Your task to perform on an android device: toggle airplane mode Image 0: 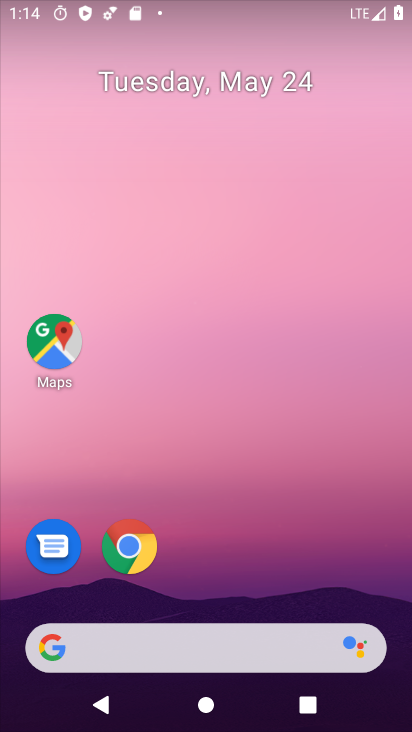
Step 0: click (282, 223)
Your task to perform on an android device: toggle airplane mode Image 1: 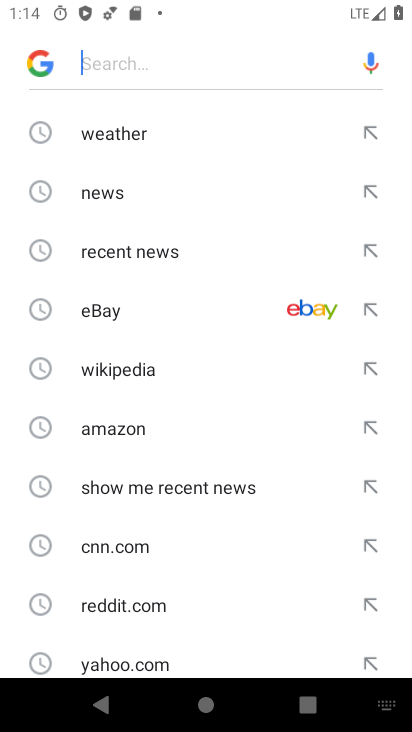
Step 1: drag from (235, 326) to (300, 21)
Your task to perform on an android device: toggle airplane mode Image 2: 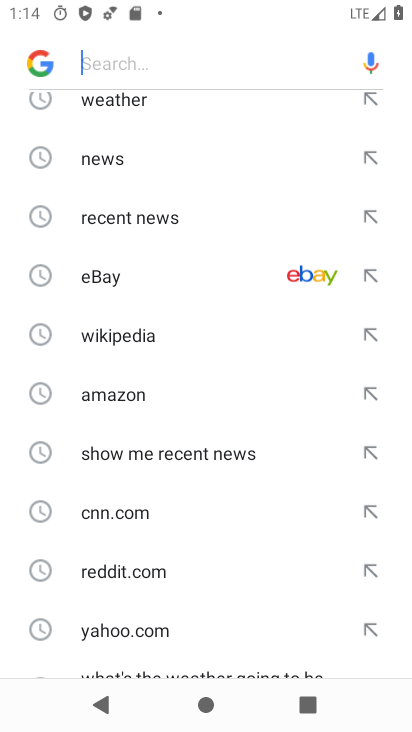
Step 2: press home button
Your task to perform on an android device: toggle airplane mode Image 3: 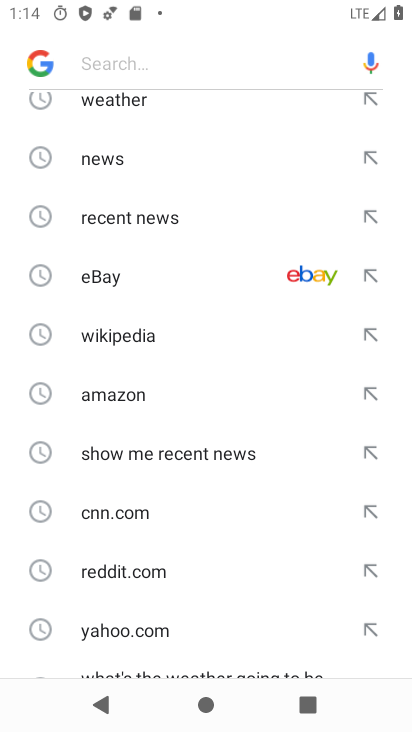
Step 3: press home button
Your task to perform on an android device: toggle airplane mode Image 4: 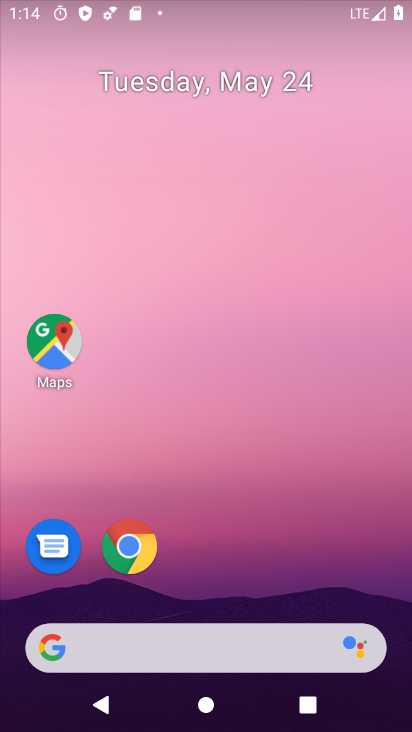
Step 4: drag from (189, 529) to (270, 6)
Your task to perform on an android device: toggle airplane mode Image 5: 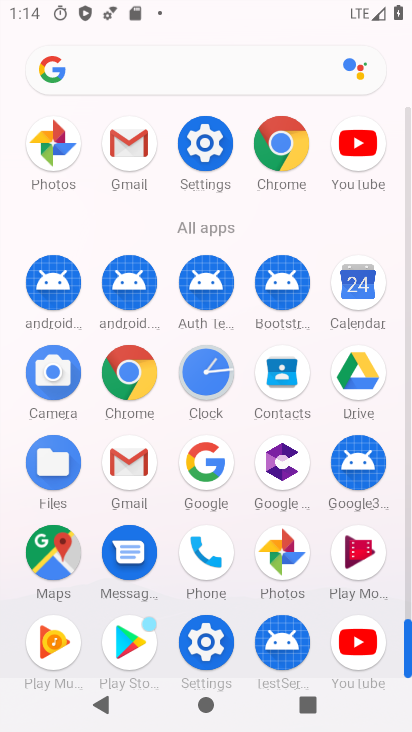
Step 5: click (206, 168)
Your task to perform on an android device: toggle airplane mode Image 6: 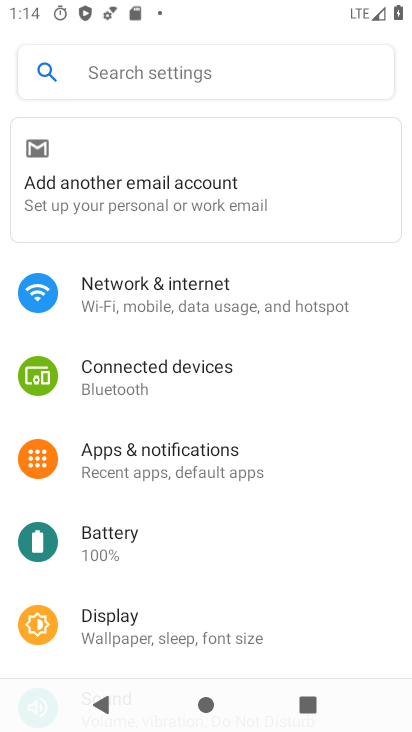
Step 6: click (224, 299)
Your task to perform on an android device: toggle airplane mode Image 7: 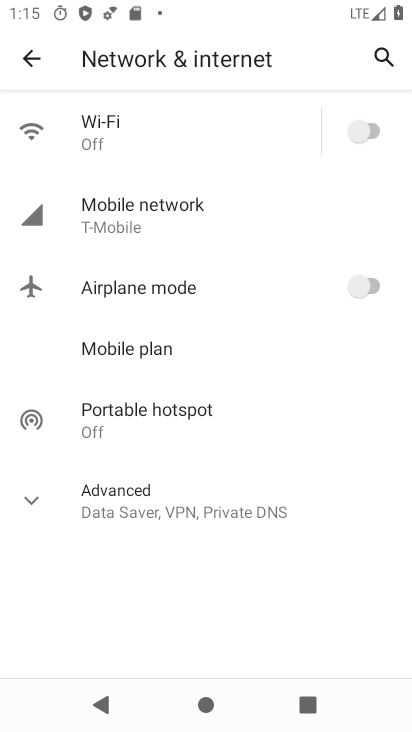
Step 7: click (236, 292)
Your task to perform on an android device: toggle airplane mode Image 8: 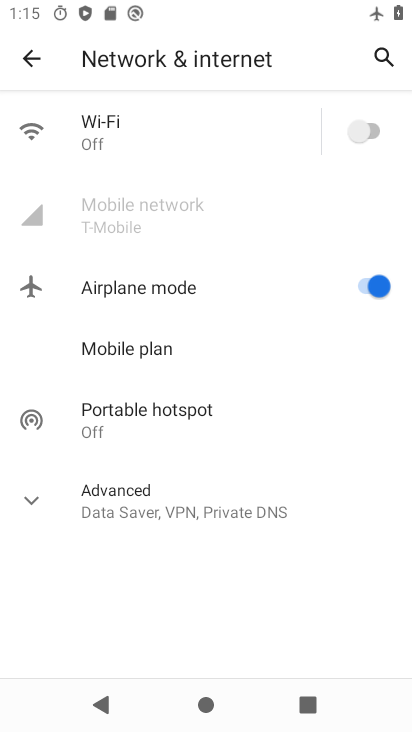
Step 8: task complete